Your task to perform on an android device: show emergency info Image 0: 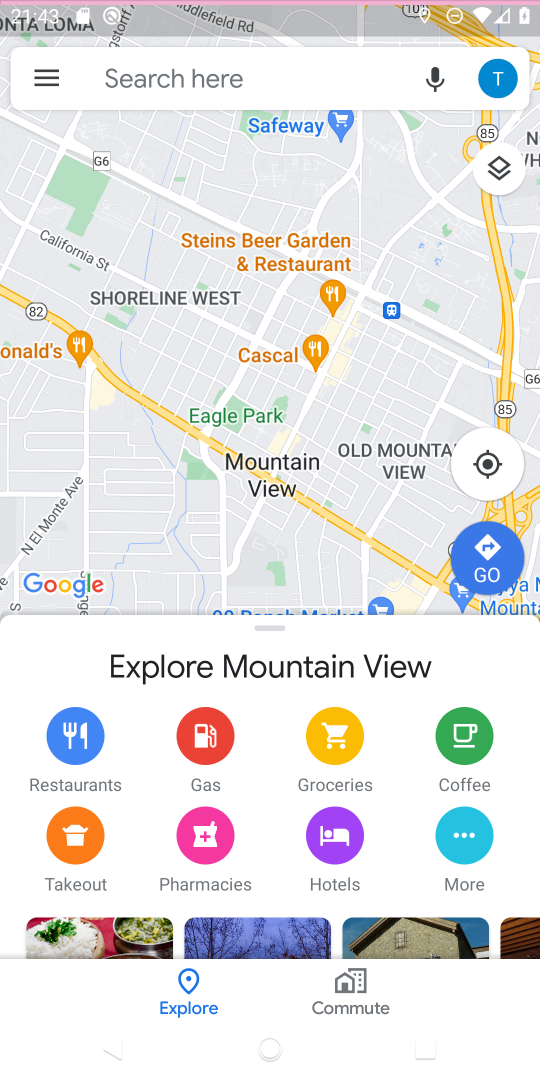
Step 0: press home button
Your task to perform on an android device: show emergency info Image 1: 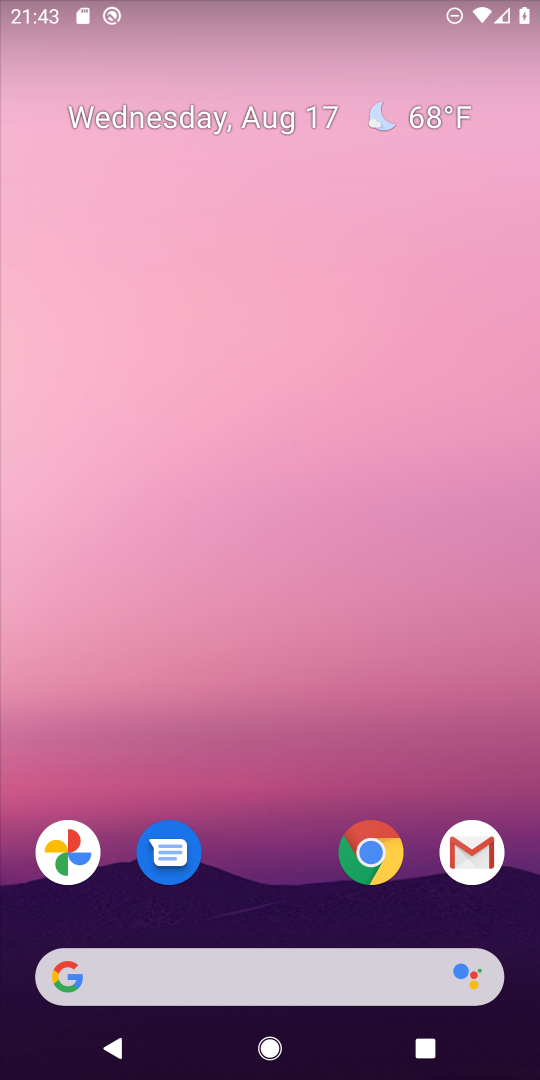
Step 1: drag from (269, 874) to (267, 117)
Your task to perform on an android device: show emergency info Image 2: 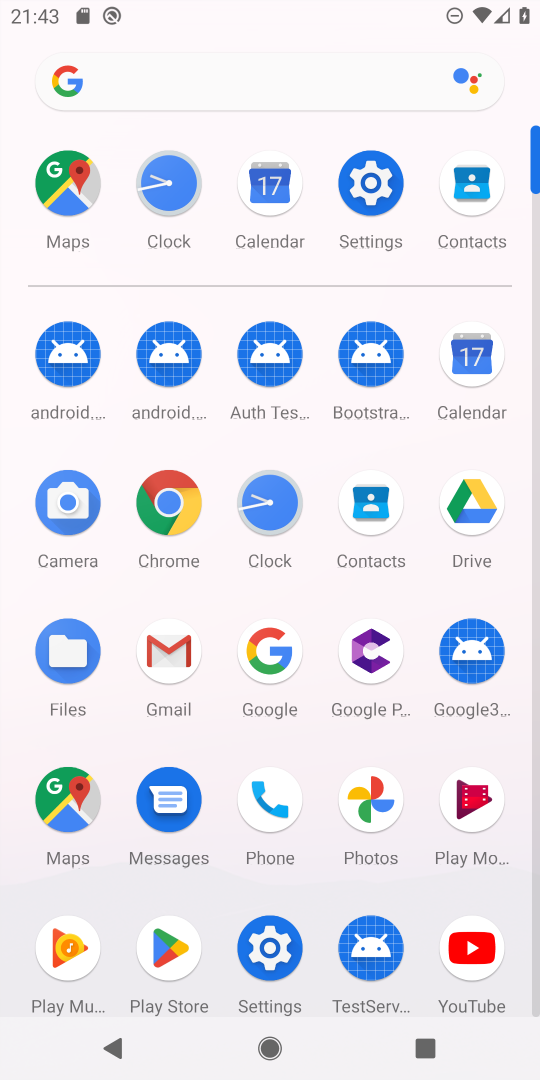
Step 2: click (366, 171)
Your task to perform on an android device: show emergency info Image 3: 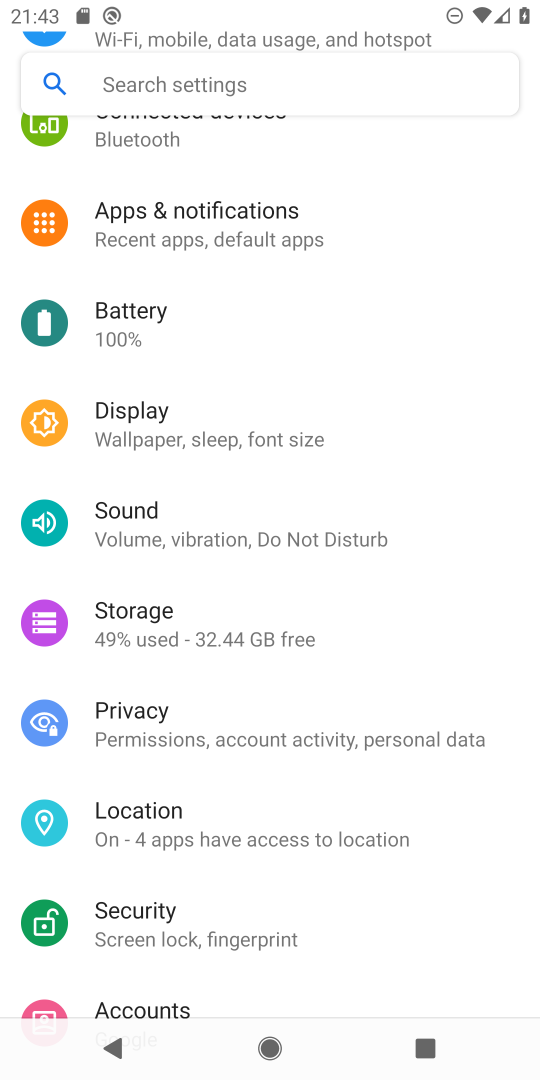
Step 3: drag from (235, 905) to (172, 133)
Your task to perform on an android device: show emergency info Image 4: 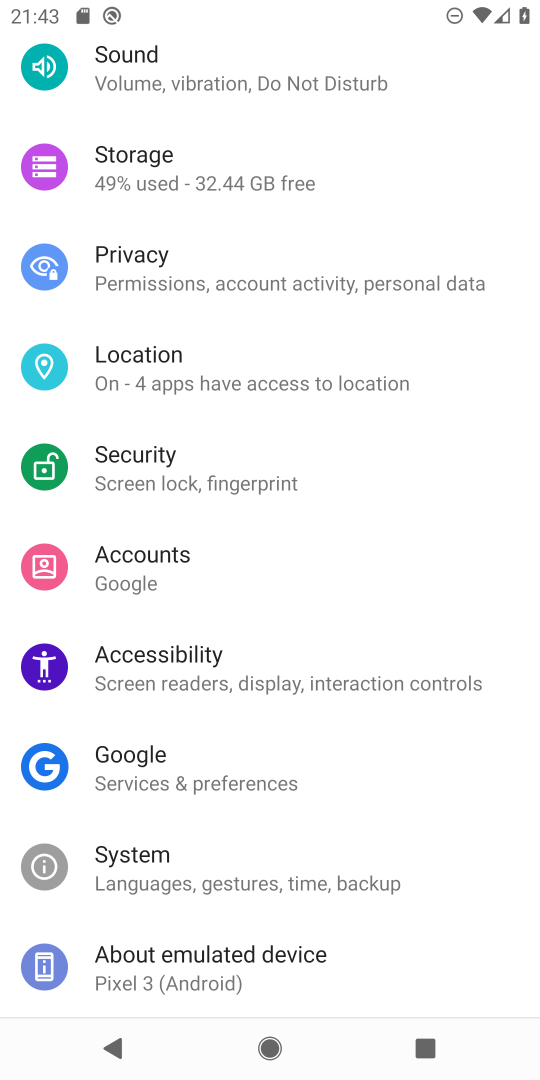
Step 4: drag from (342, 812) to (340, 351)
Your task to perform on an android device: show emergency info Image 5: 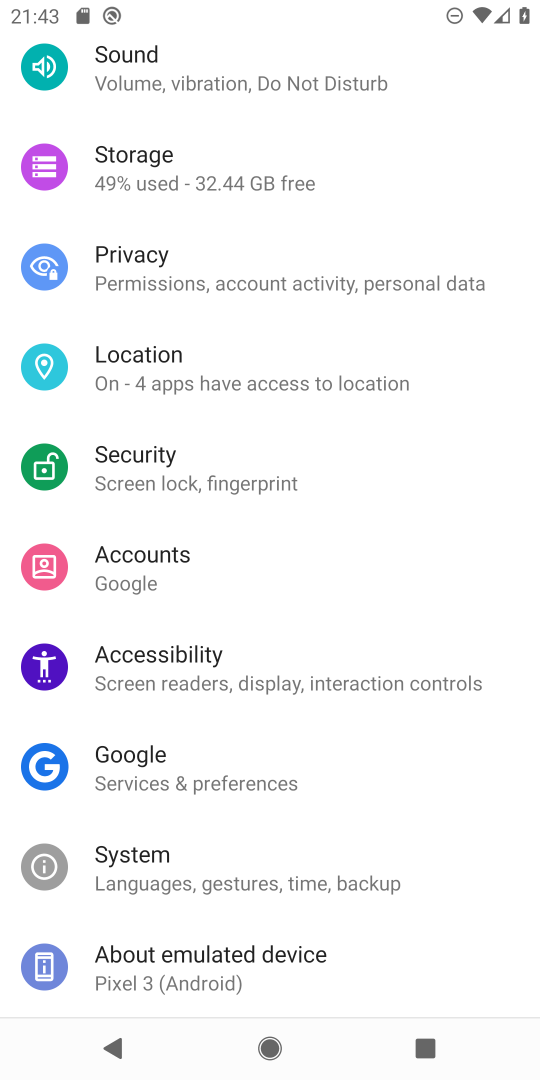
Step 5: click (186, 950)
Your task to perform on an android device: show emergency info Image 6: 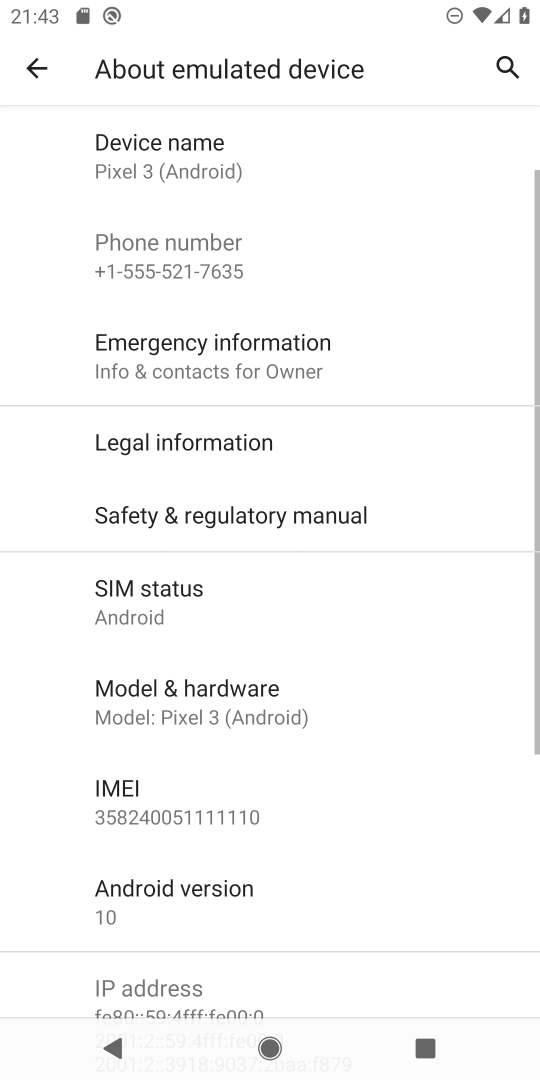
Step 6: click (220, 346)
Your task to perform on an android device: show emergency info Image 7: 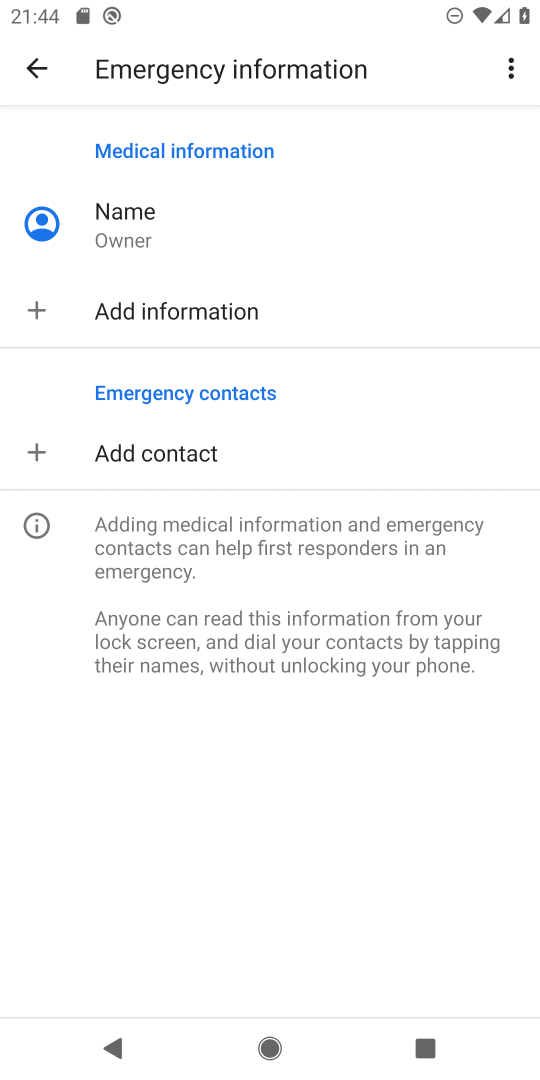
Step 7: task complete